Your task to perform on an android device: open app "YouTube Kids" (install if not already installed) Image 0: 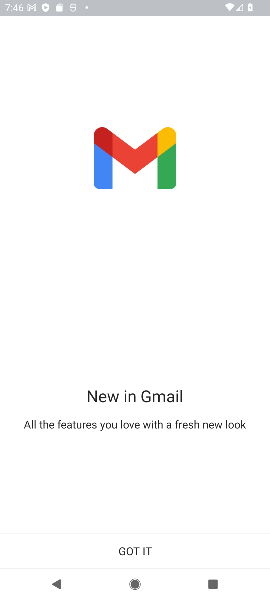
Step 0: press home button
Your task to perform on an android device: open app "YouTube Kids" (install if not already installed) Image 1: 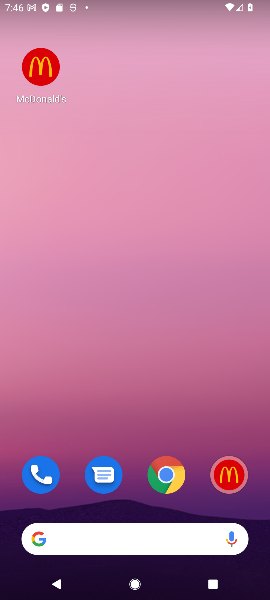
Step 1: drag from (132, 493) to (132, 4)
Your task to perform on an android device: open app "YouTube Kids" (install if not already installed) Image 2: 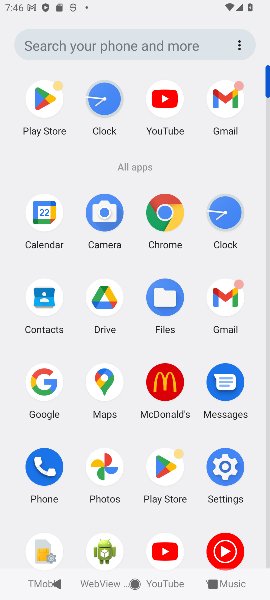
Step 2: click (45, 106)
Your task to perform on an android device: open app "YouTube Kids" (install if not already installed) Image 3: 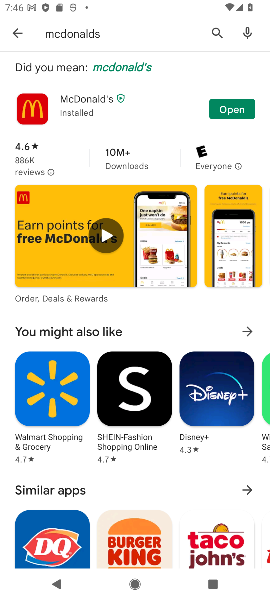
Step 3: click (86, 34)
Your task to perform on an android device: open app "YouTube Kids" (install if not already installed) Image 4: 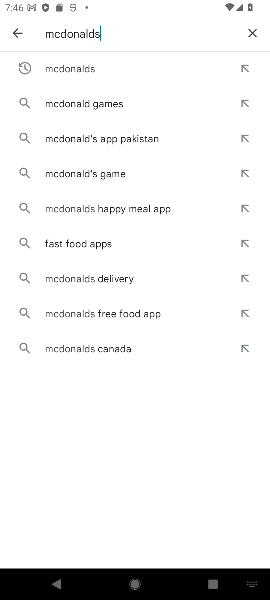
Step 4: click (256, 32)
Your task to perform on an android device: open app "YouTube Kids" (install if not already installed) Image 5: 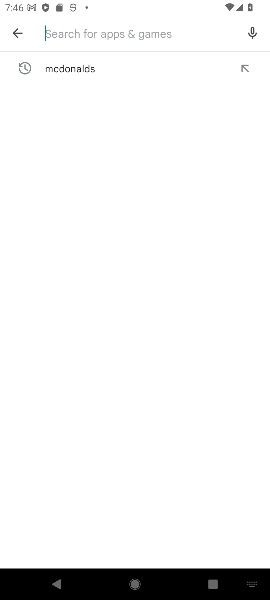
Step 5: type "youtube kids\"
Your task to perform on an android device: open app "YouTube Kids" (install if not already installed) Image 6: 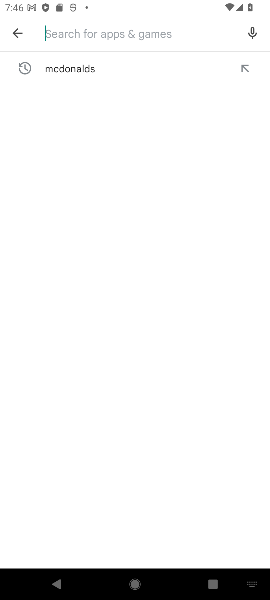
Step 6: click (138, 38)
Your task to perform on an android device: open app "YouTube Kids" (install if not already installed) Image 7: 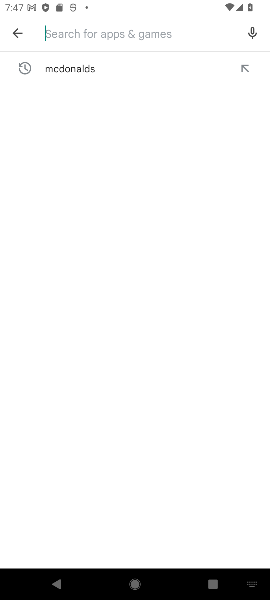
Step 7: type "youtube kids"
Your task to perform on an android device: open app "YouTube Kids" (install if not already installed) Image 8: 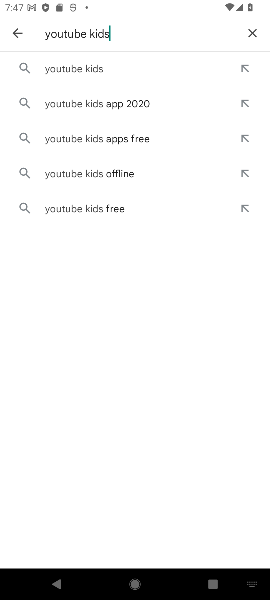
Step 8: click (79, 68)
Your task to perform on an android device: open app "YouTube Kids" (install if not already installed) Image 9: 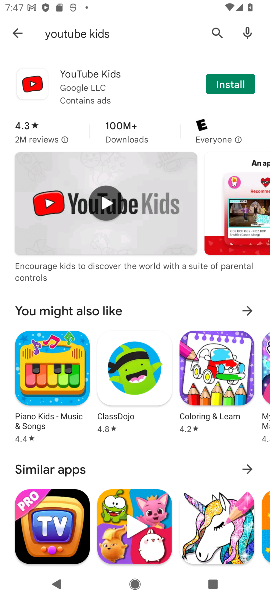
Step 9: click (245, 83)
Your task to perform on an android device: open app "YouTube Kids" (install if not already installed) Image 10: 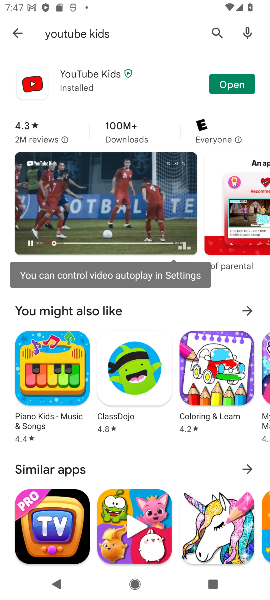
Step 10: click (233, 91)
Your task to perform on an android device: open app "YouTube Kids" (install if not already installed) Image 11: 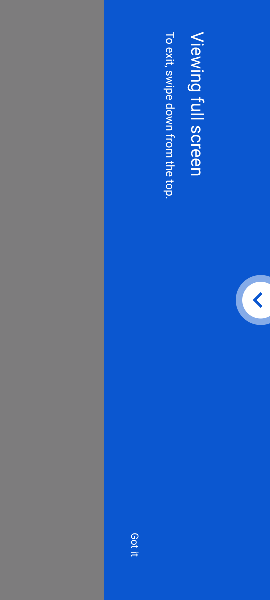
Step 11: click (138, 544)
Your task to perform on an android device: open app "YouTube Kids" (install if not already installed) Image 12: 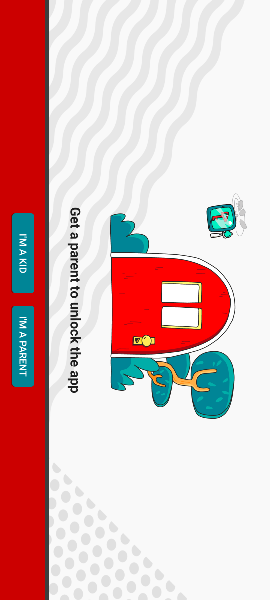
Step 12: click (26, 340)
Your task to perform on an android device: open app "YouTube Kids" (install if not already installed) Image 13: 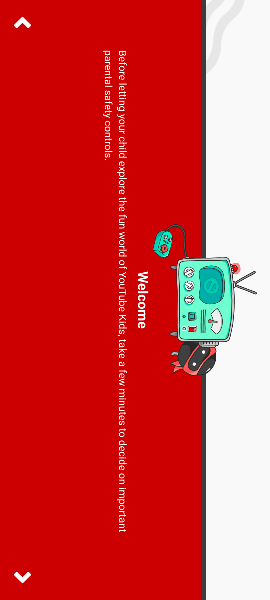
Step 13: click (27, 579)
Your task to perform on an android device: open app "YouTube Kids" (install if not already installed) Image 14: 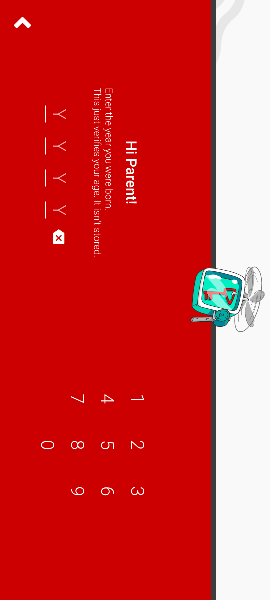
Step 14: click (134, 404)
Your task to perform on an android device: open app "YouTube Kids" (install if not already installed) Image 15: 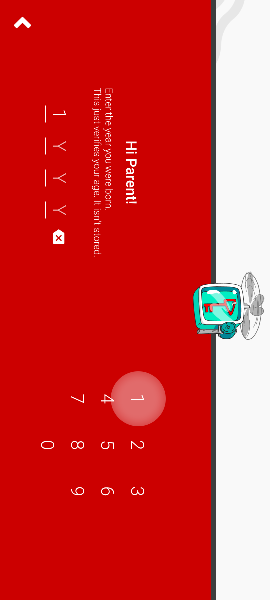
Step 15: click (76, 488)
Your task to perform on an android device: open app "YouTube Kids" (install if not already installed) Image 16: 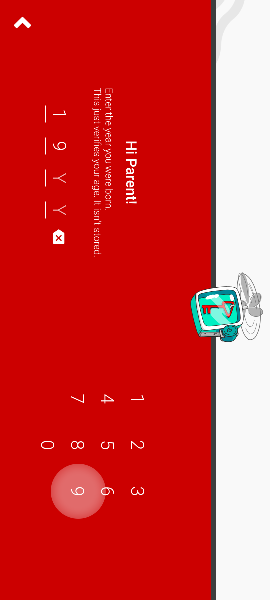
Step 16: click (80, 493)
Your task to perform on an android device: open app "YouTube Kids" (install if not already installed) Image 17: 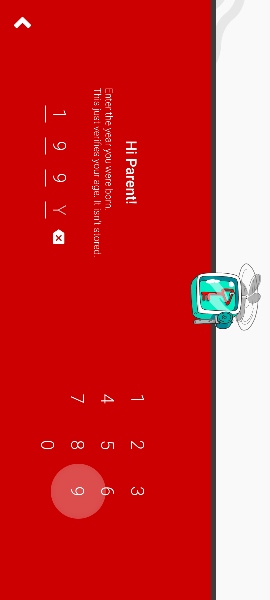
Step 17: click (140, 439)
Your task to perform on an android device: open app "YouTube Kids" (install if not already installed) Image 18: 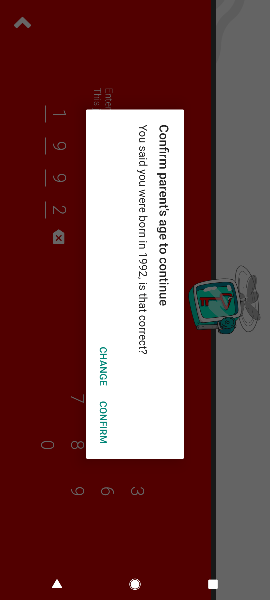
Step 18: click (102, 418)
Your task to perform on an android device: open app "YouTube Kids" (install if not already installed) Image 19: 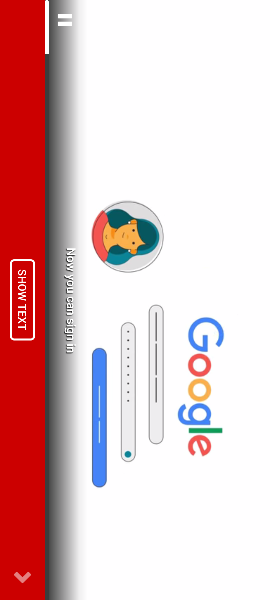
Step 19: click (26, 301)
Your task to perform on an android device: open app "YouTube Kids" (install if not already installed) Image 20: 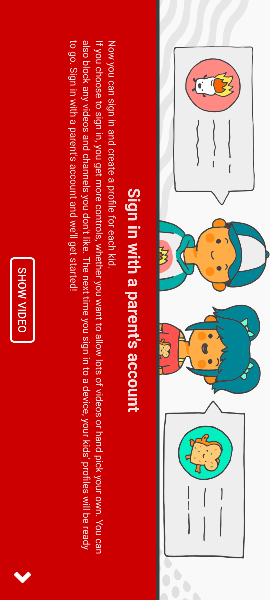
Step 20: click (25, 581)
Your task to perform on an android device: open app "YouTube Kids" (install if not already installed) Image 21: 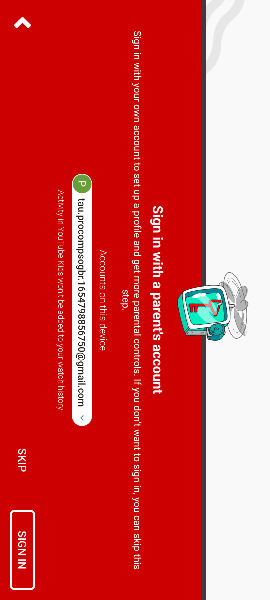
Step 21: click (24, 459)
Your task to perform on an android device: open app "YouTube Kids" (install if not already installed) Image 22: 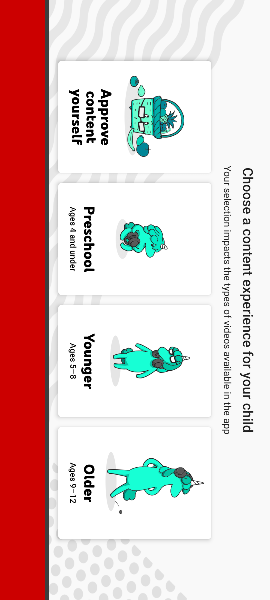
Step 22: task complete